Your task to perform on an android device: open app "Google Keep" (install if not already installed) Image 0: 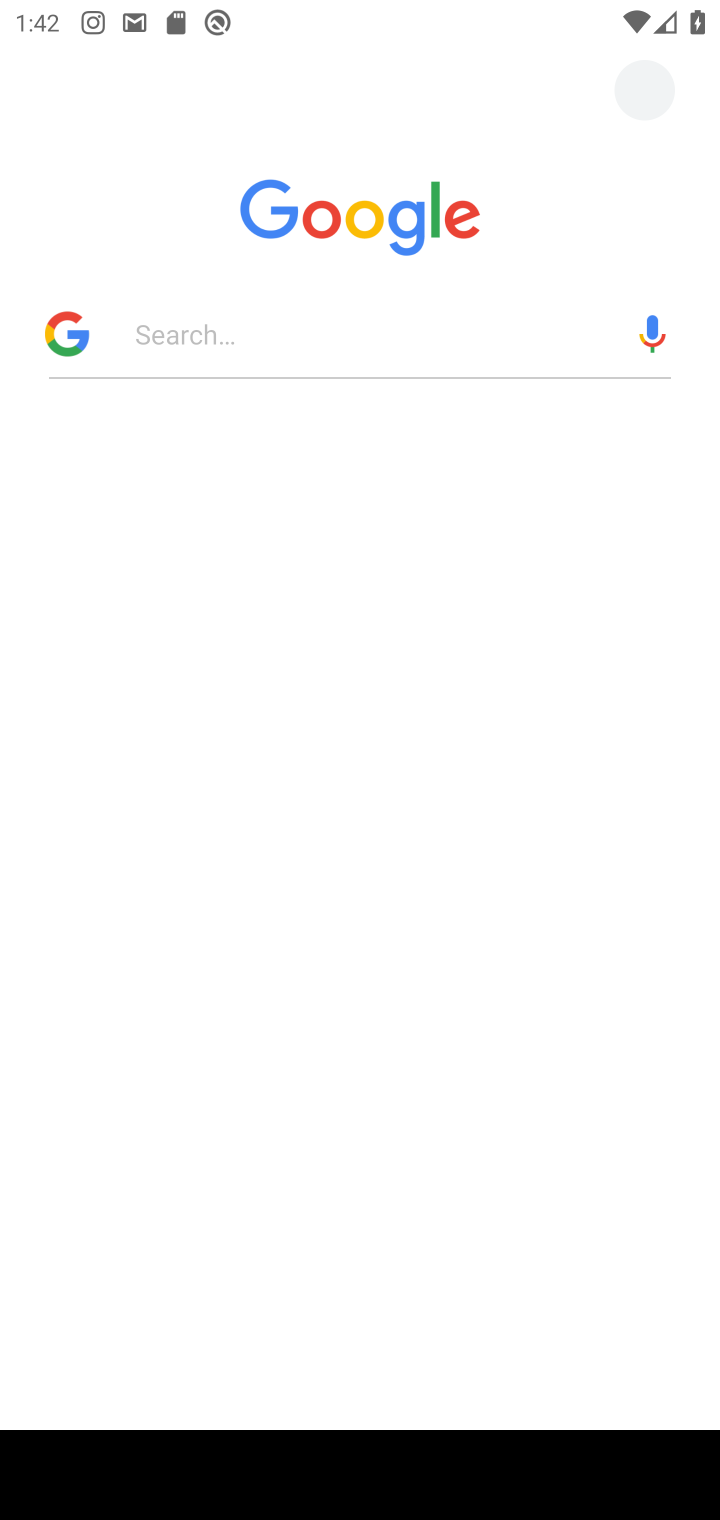
Step 0: press home button
Your task to perform on an android device: open app "Google Keep" (install if not already installed) Image 1: 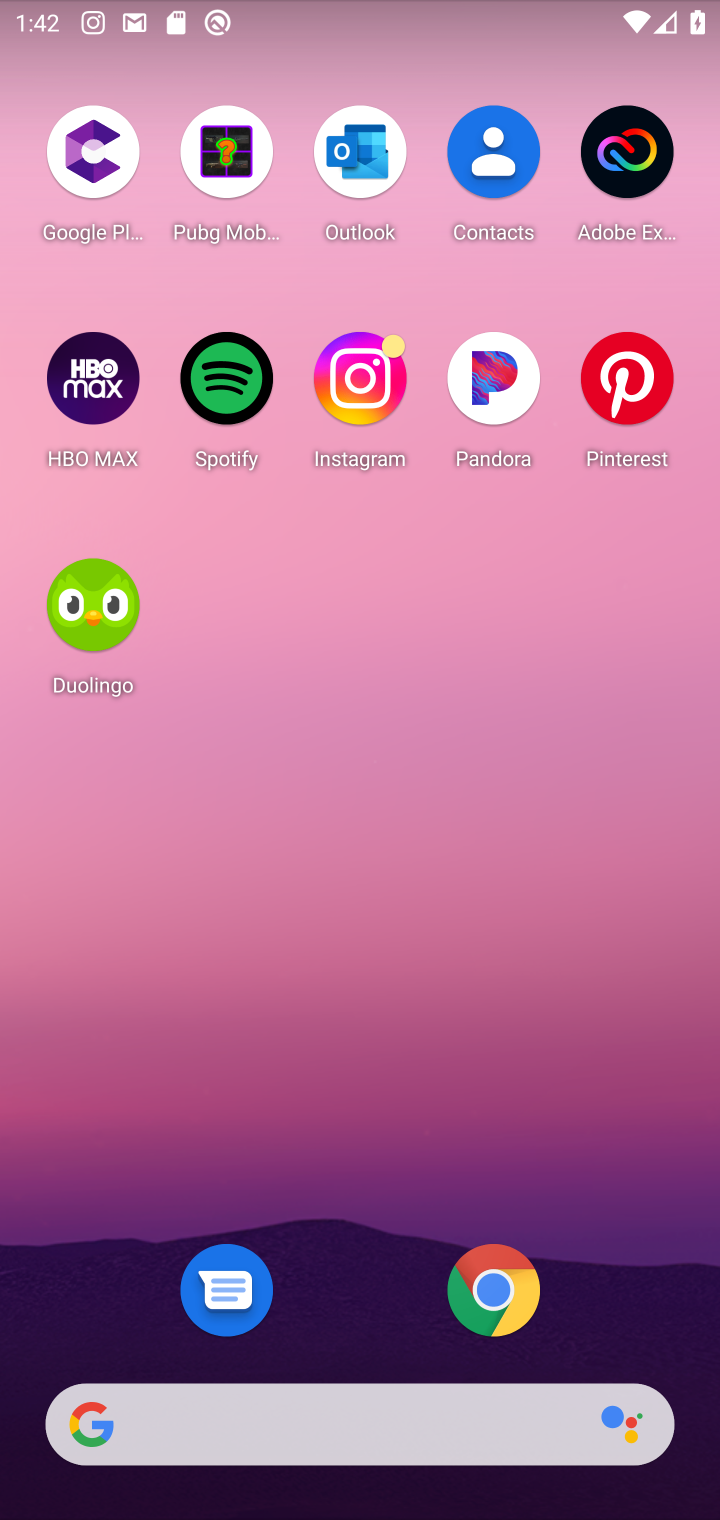
Step 1: drag from (346, 1178) to (285, 106)
Your task to perform on an android device: open app "Google Keep" (install if not already installed) Image 2: 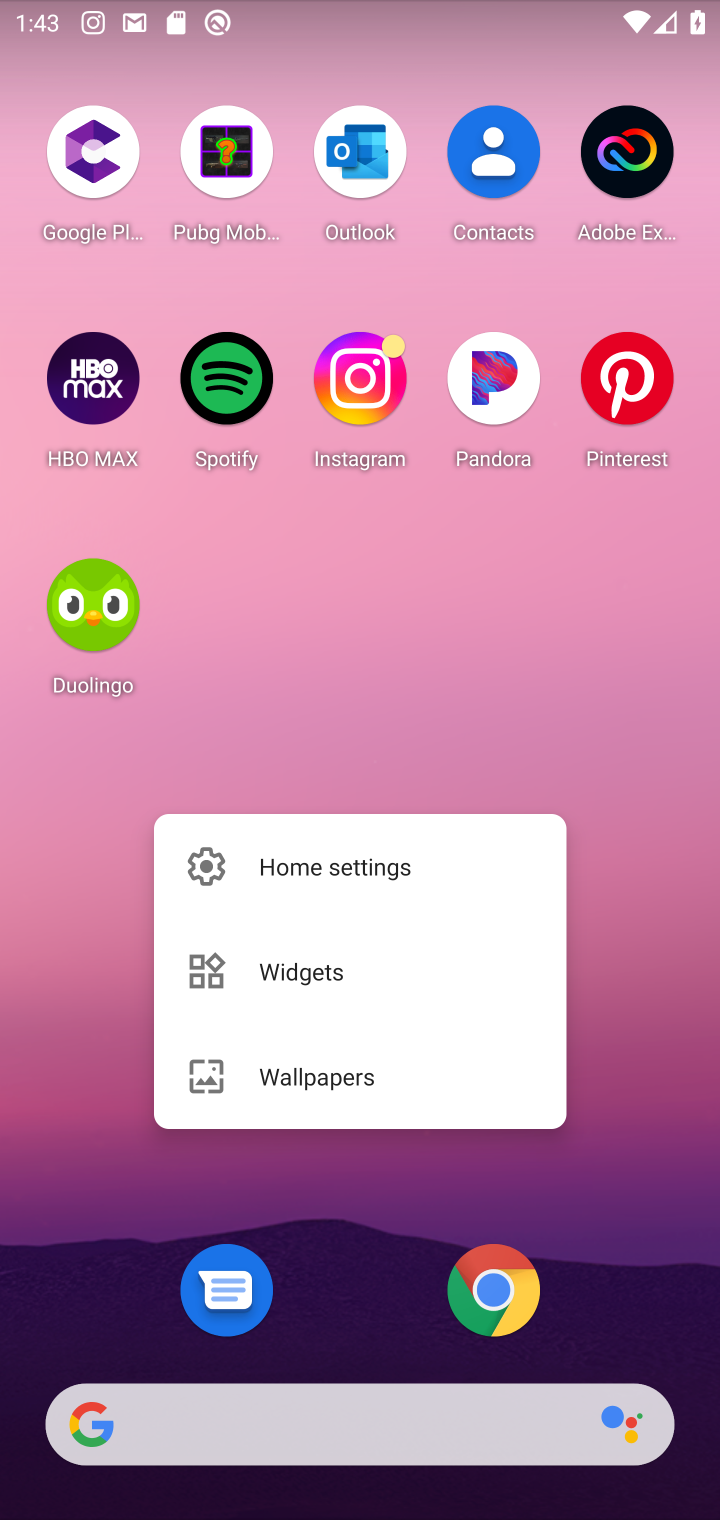
Step 2: click (344, 1354)
Your task to perform on an android device: open app "Google Keep" (install if not already installed) Image 3: 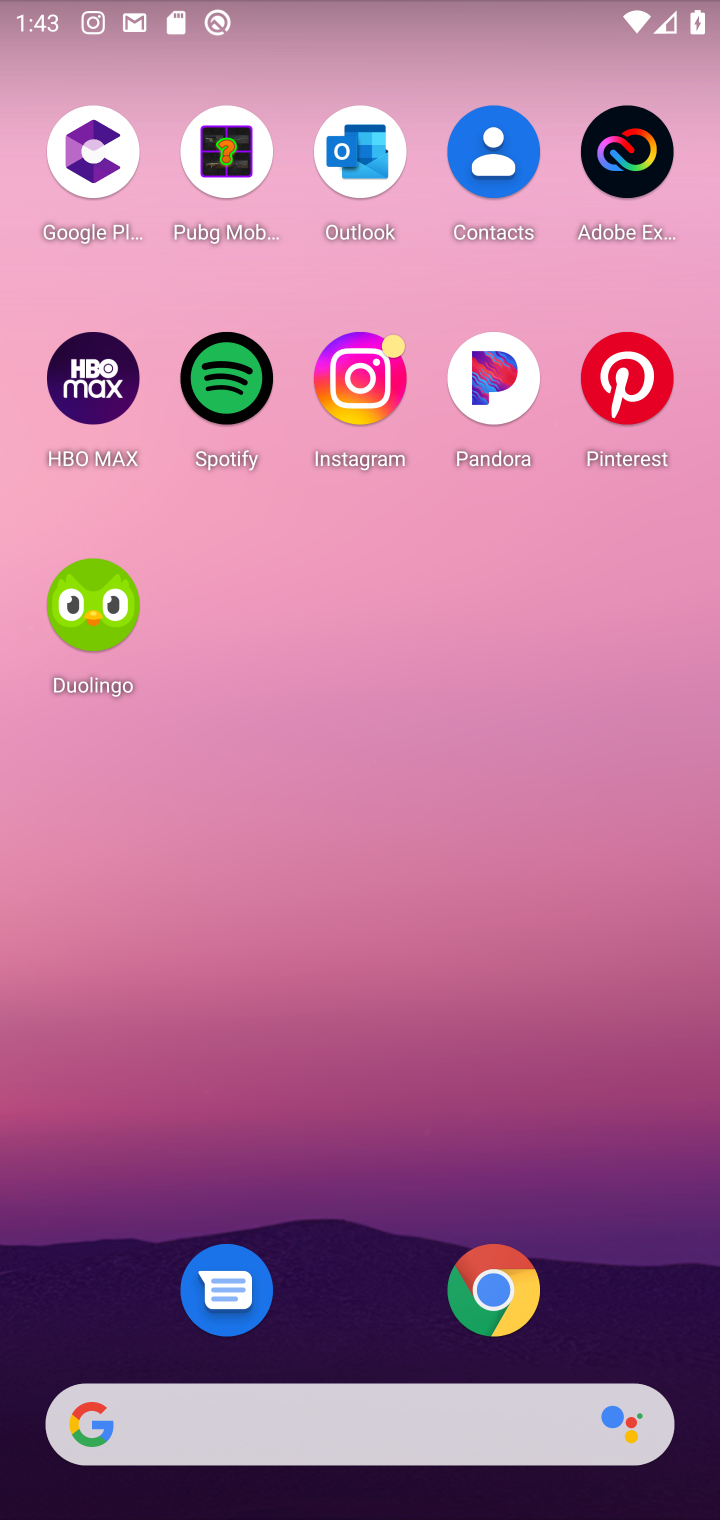
Step 3: drag from (349, 1334) to (323, 11)
Your task to perform on an android device: open app "Google Keep" (install if not already installed) Image 4: 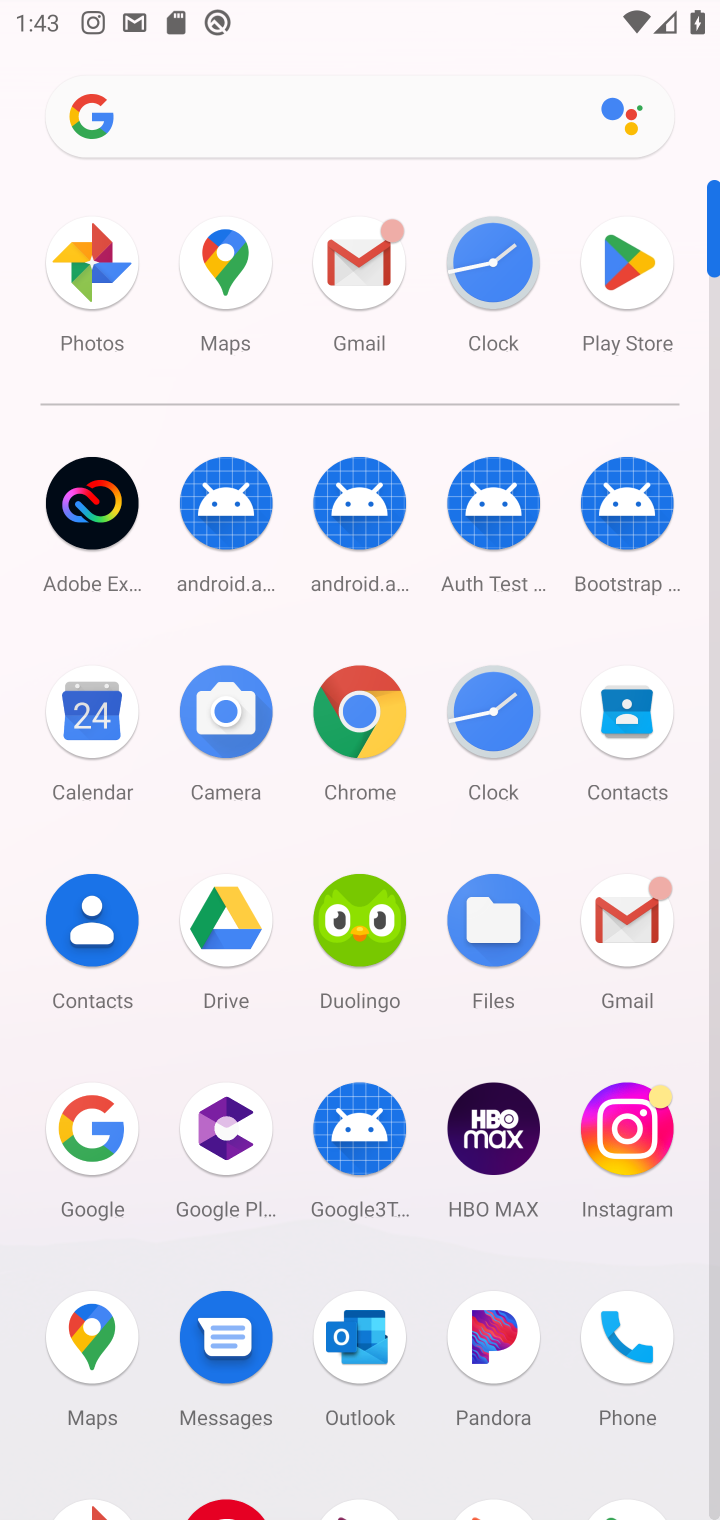
Step 4: click (619, 283)
Your task to perform on an android device: open app "Google Keep" (install if not already installed) Image 5: 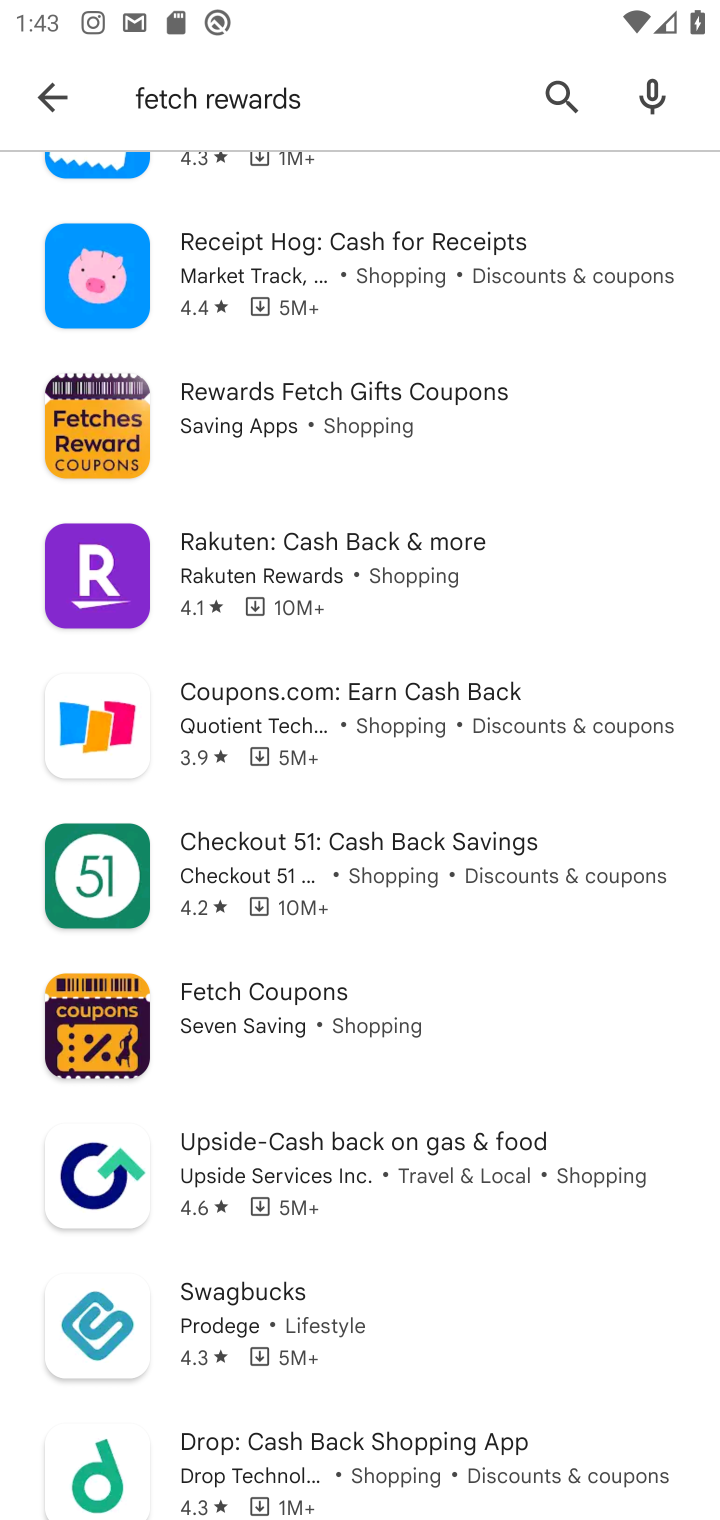
Step 5: click (53, 99)
Your task to perform on an android device: open app "Google Keep" (install if not already installed) Image 6: 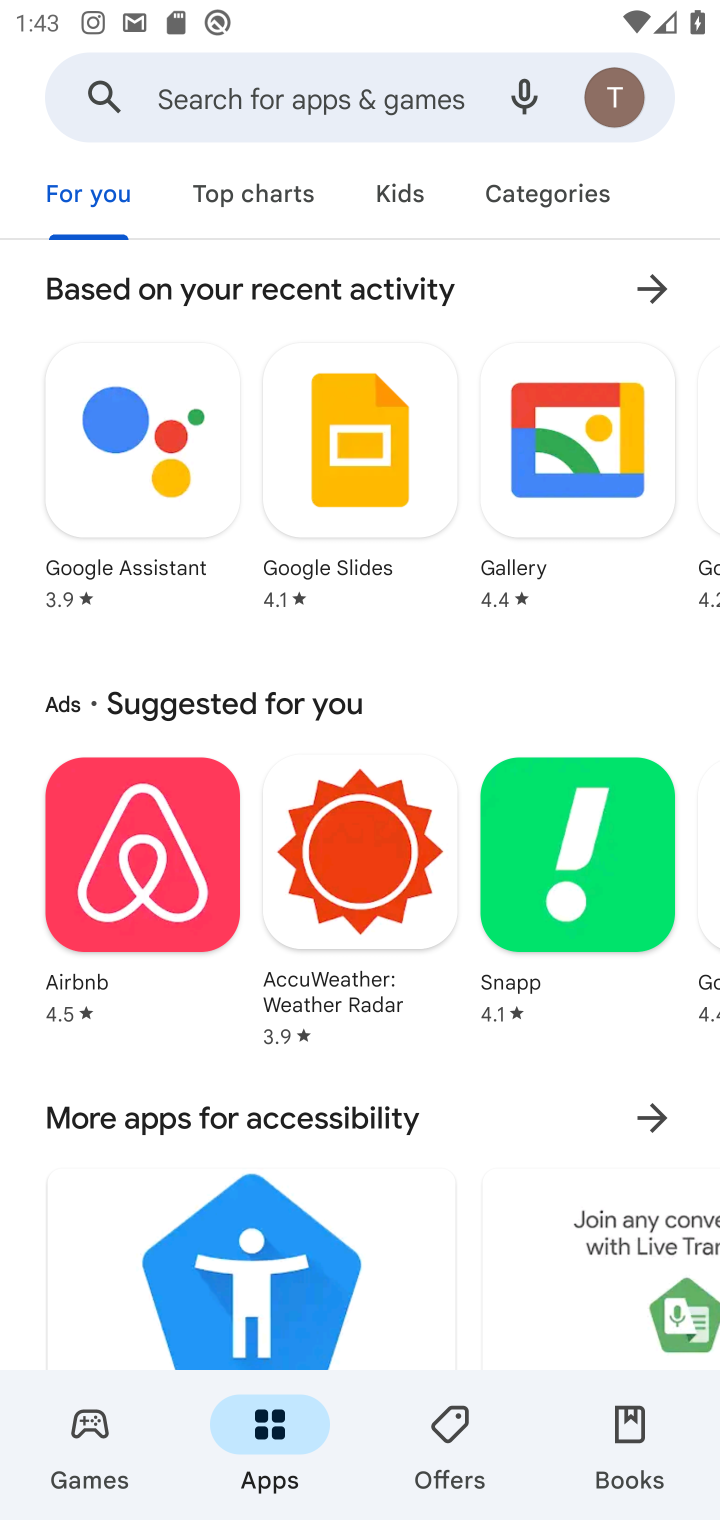
Step 6: click (267, 100)
Your task to perform on an android device: open app "Google Keep" (install if not already installed) Image 7: 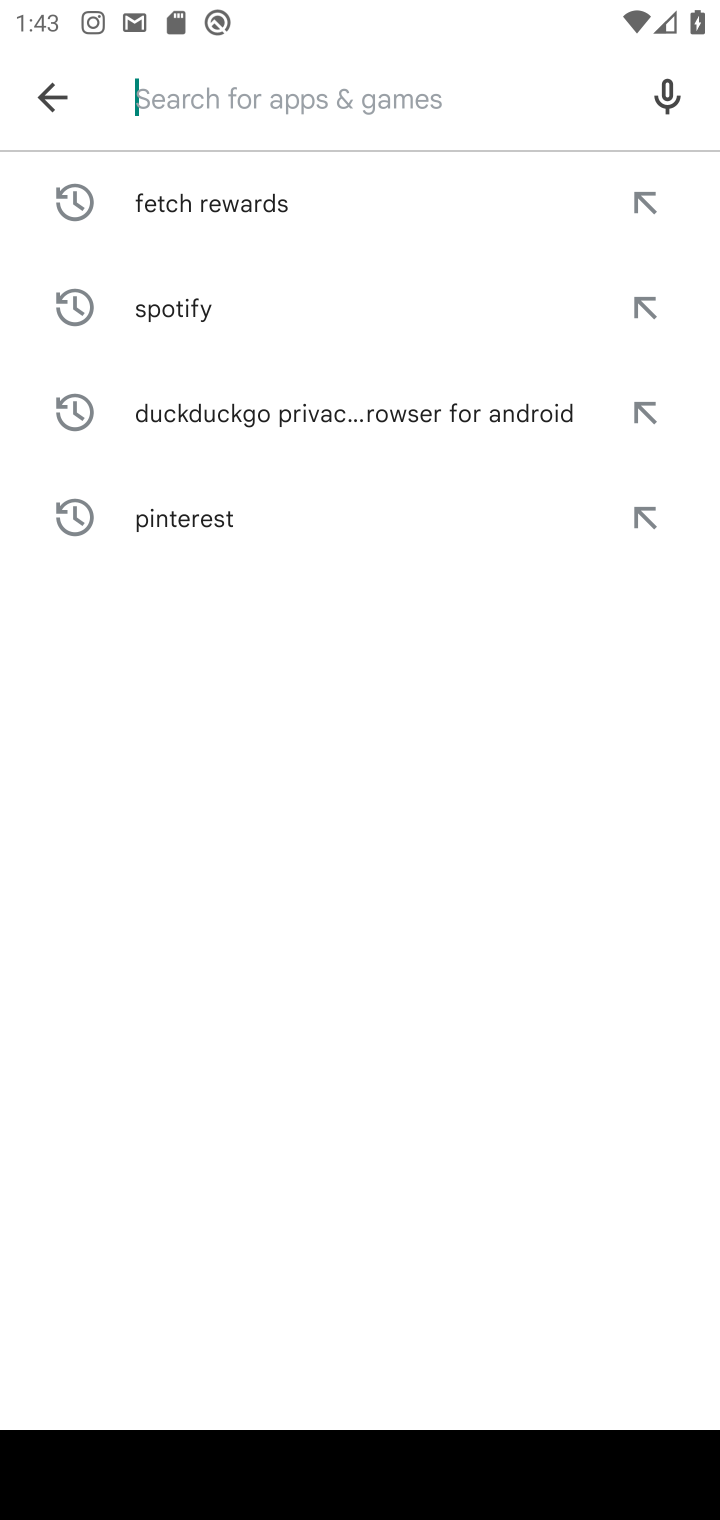
Step 7: type "Google Keep"
Your task to perform on an android device: open app "Google Keep" (install if not already installed) Image 8: 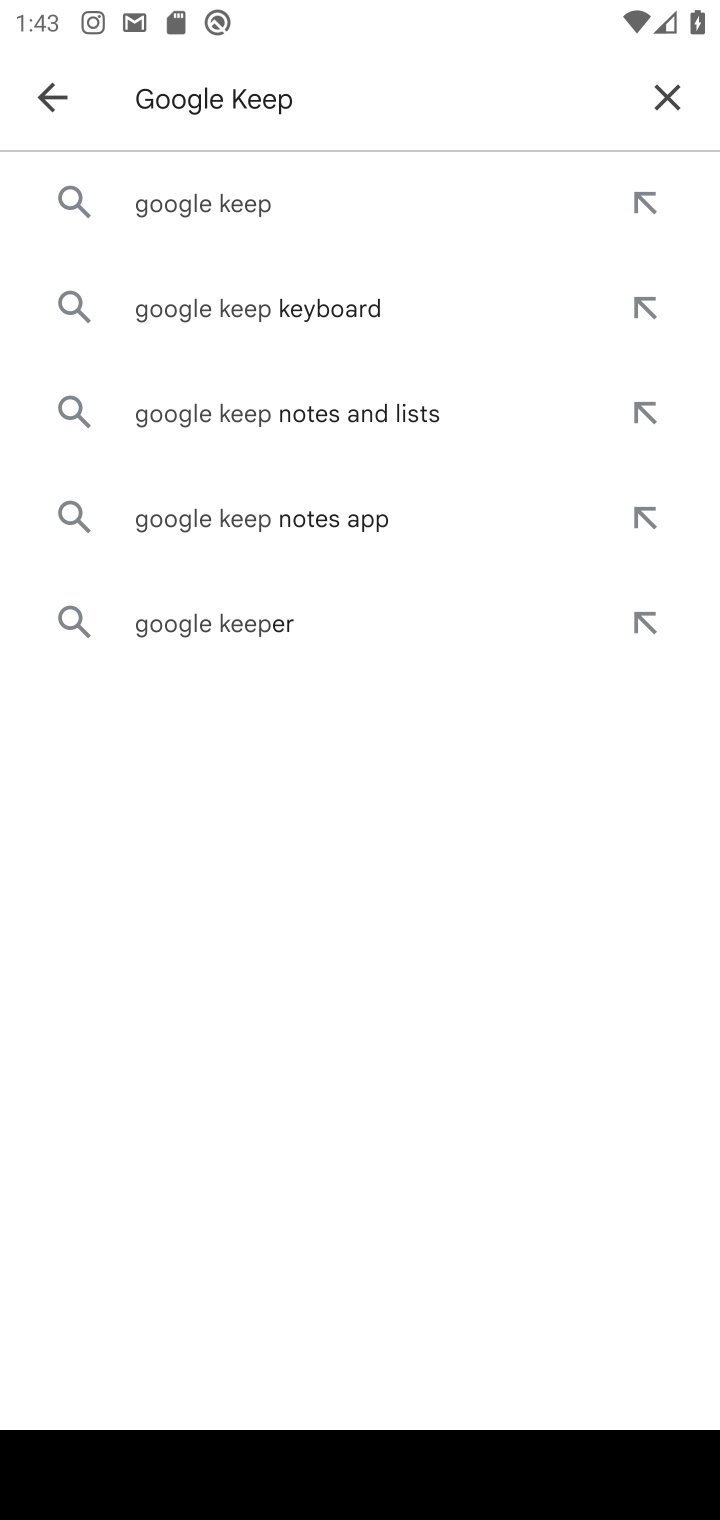
Step 8: click (217, 222)
Your task to perform on an android device: open app "Google Keep" (install if not already installed) Image 9: 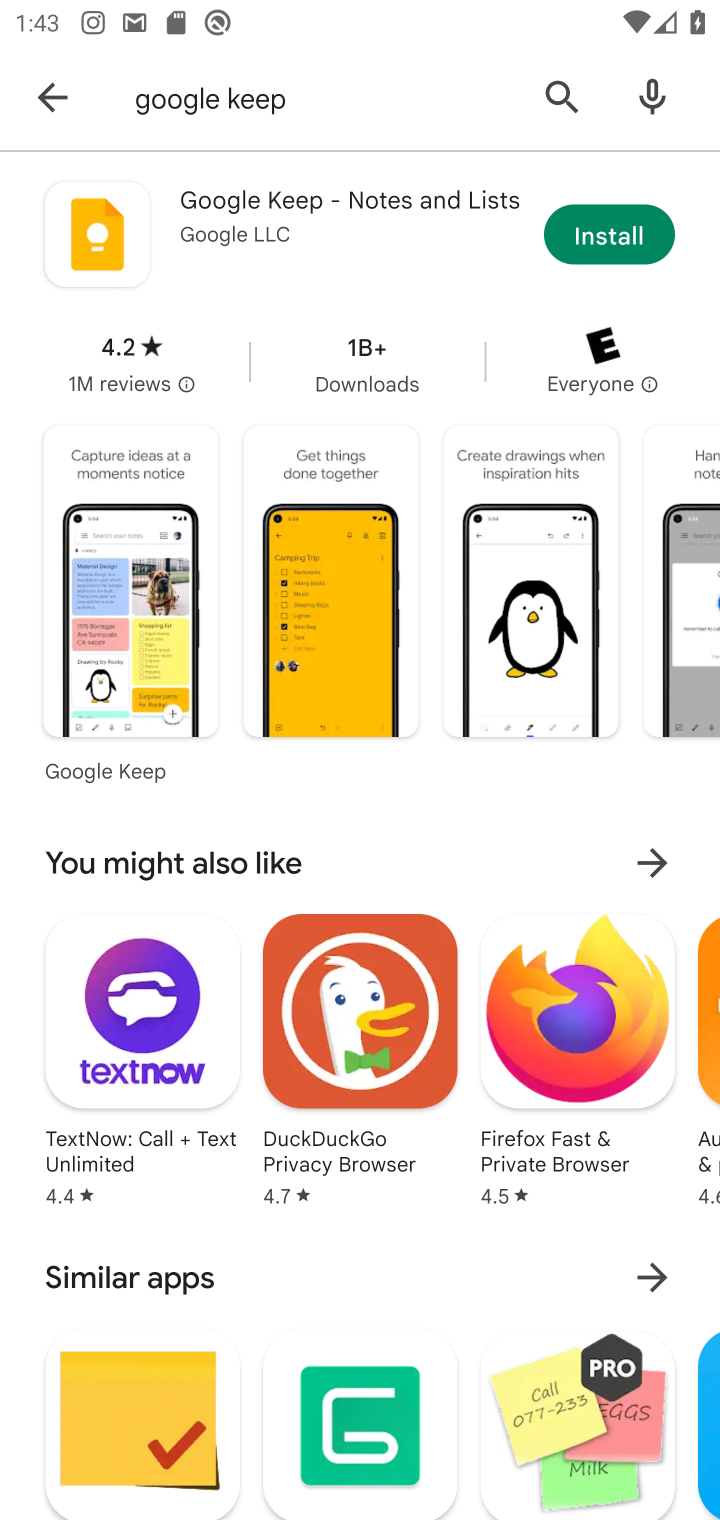
Step 9: click (580, 243)
Your task to perform on an android device: open app "Google Keep" (install if not already installed) Image 10: 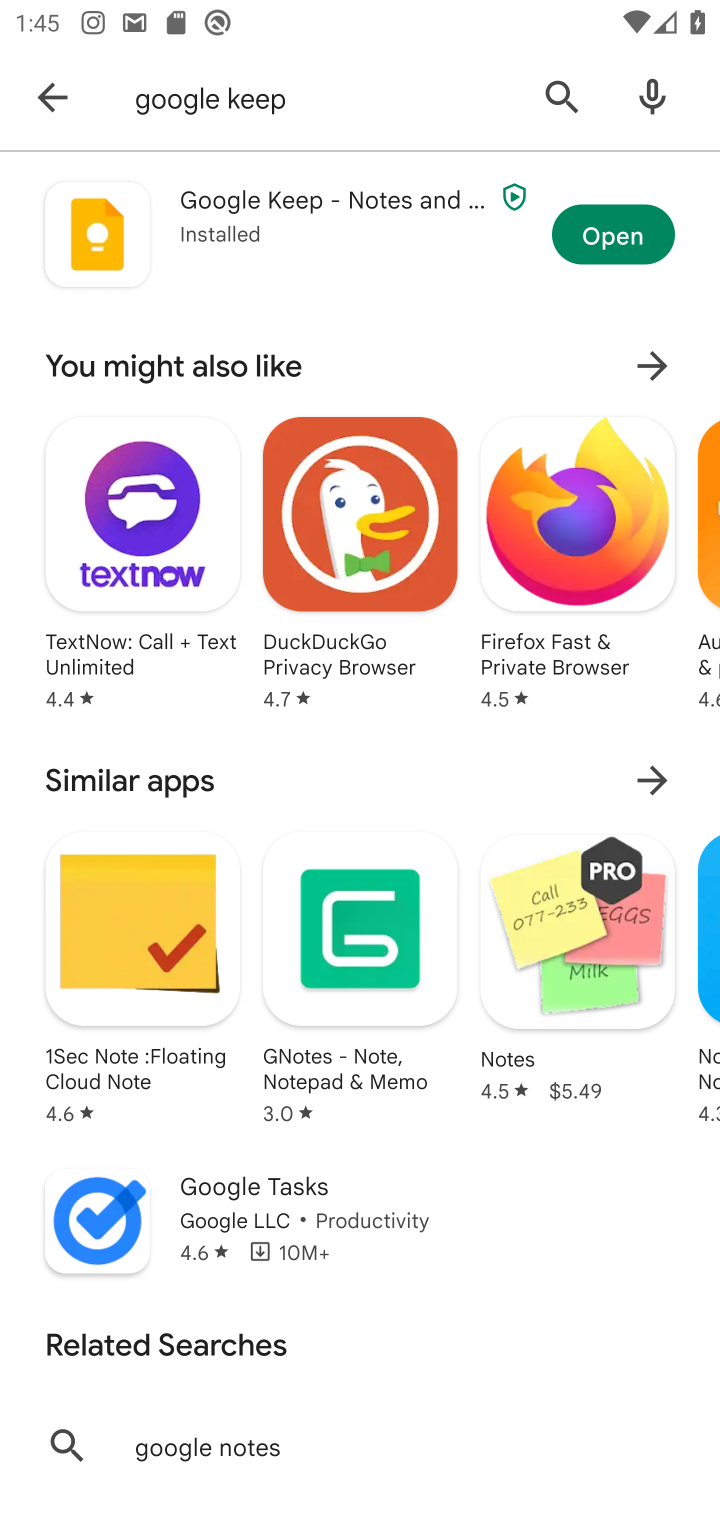
Step 10: click (580, 243)
Your task to perform on an android device: open app "Google Keep" (install if not already installed) Image 11: 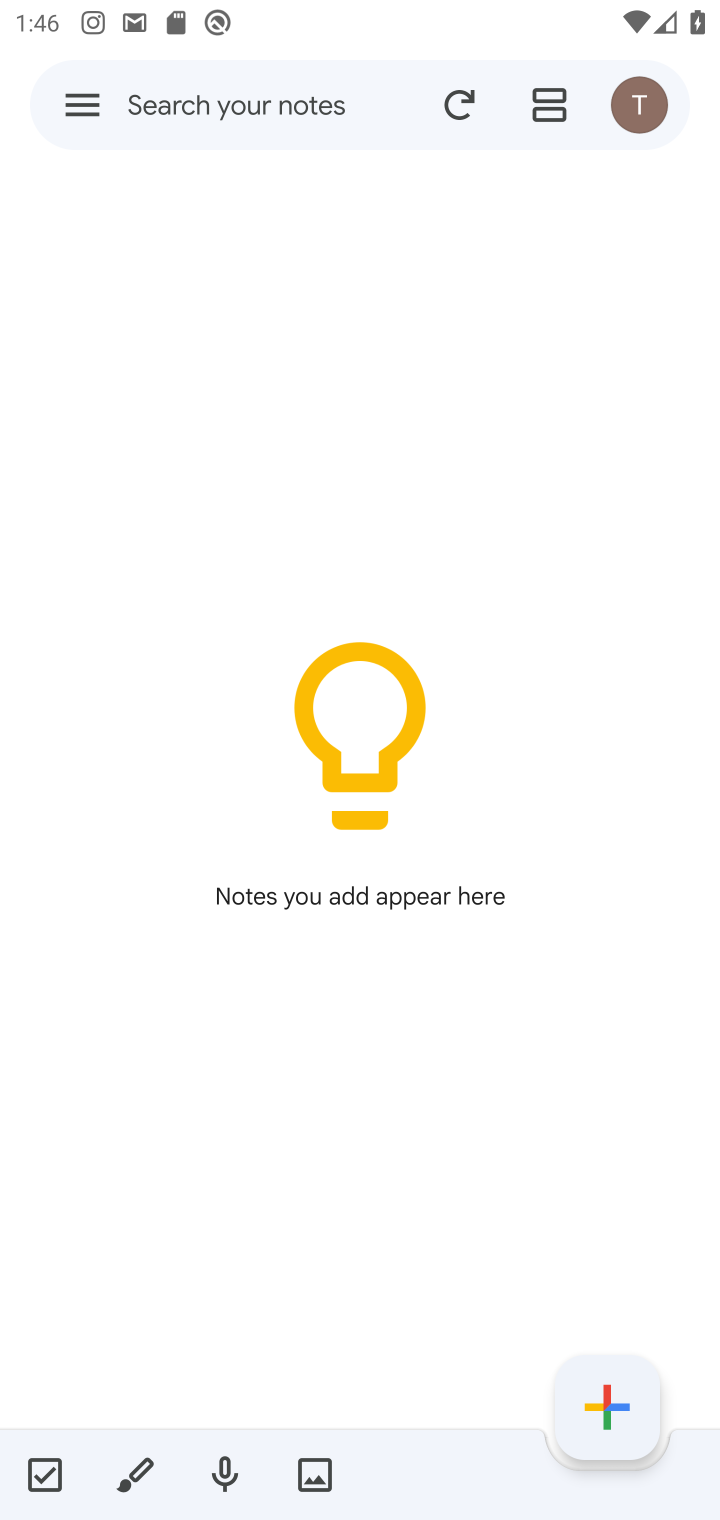
Step 11: press home button
Your task to perform on an android device: open app "Google Keep" (install if not already installed) Image 12: 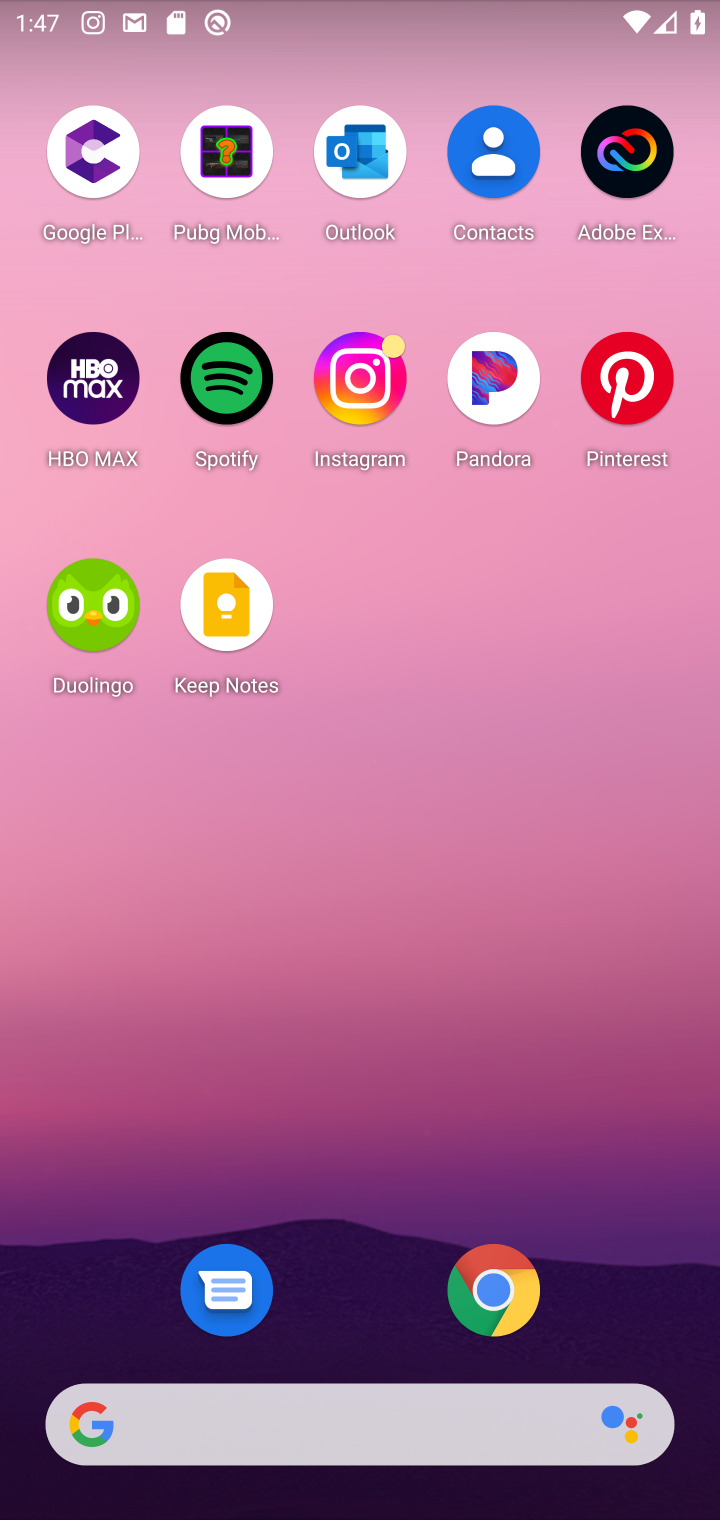
Step 12: drag from (333, 954) to (453, 15)
Your task to perform on an android device: open app "Google Keep" (install if not already installed) Image 13: 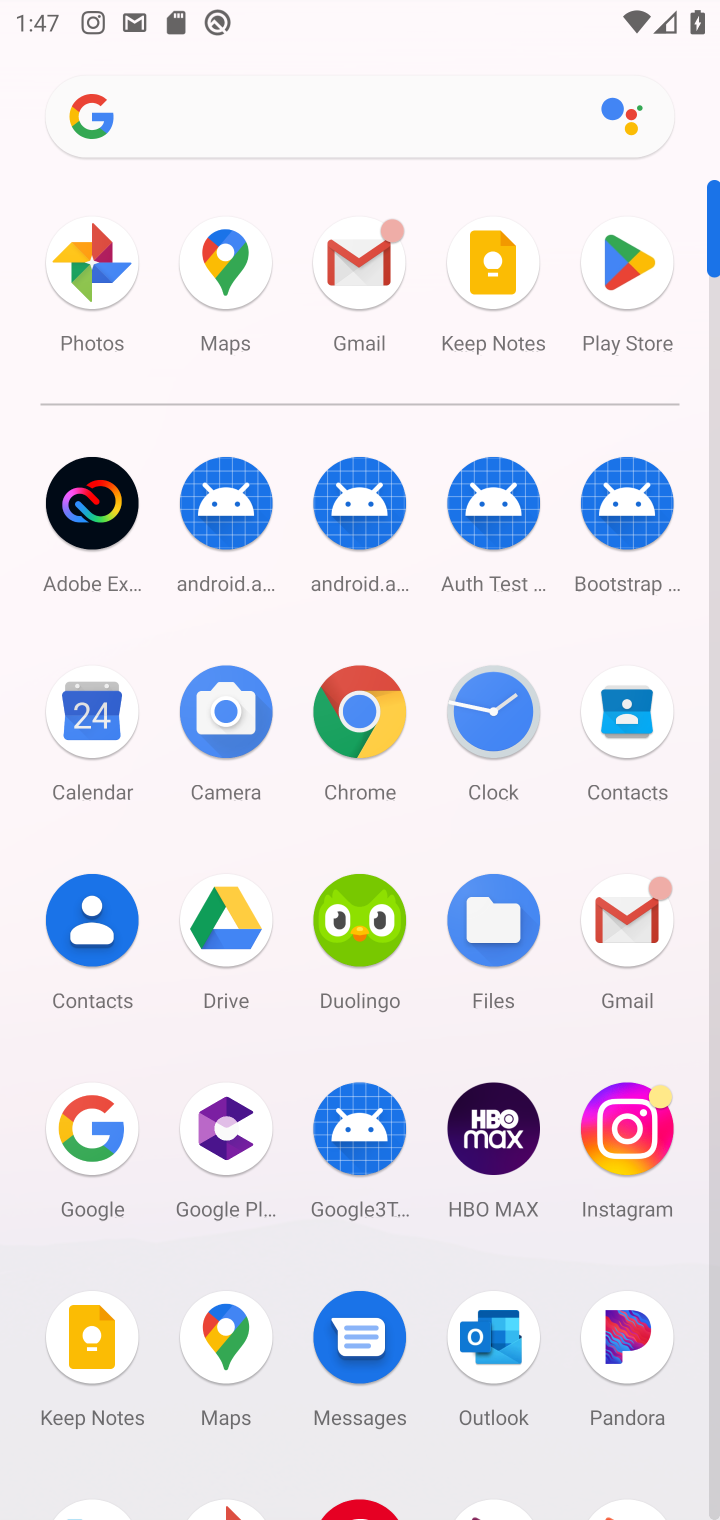
Step 13: click (619, 282)
Your task to perform on an android device: open app "Google Keep" (install if not already installed) Image 14: 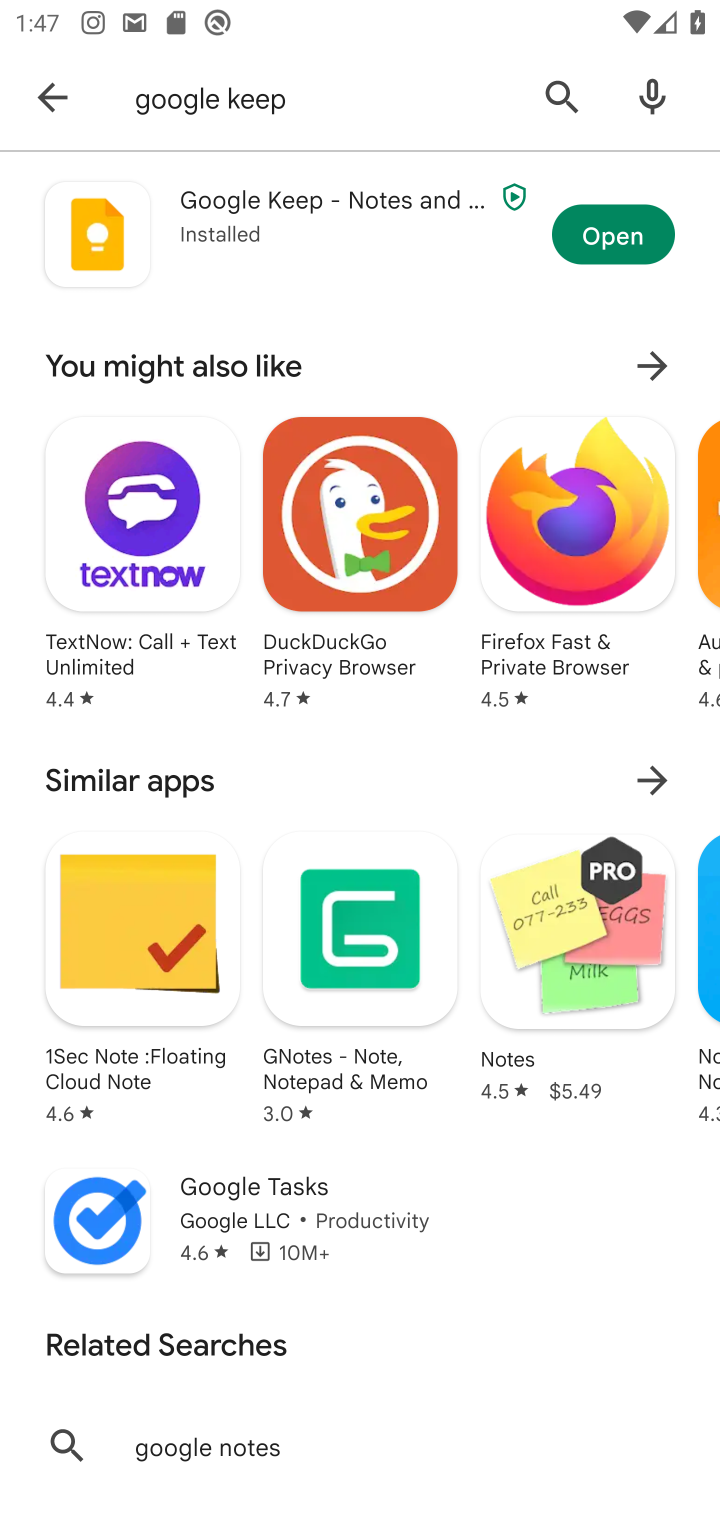
Step 14: click (602, 244)
Your task to perform on an android device: open app "Google Keep" (install if not already installed) Image 15: 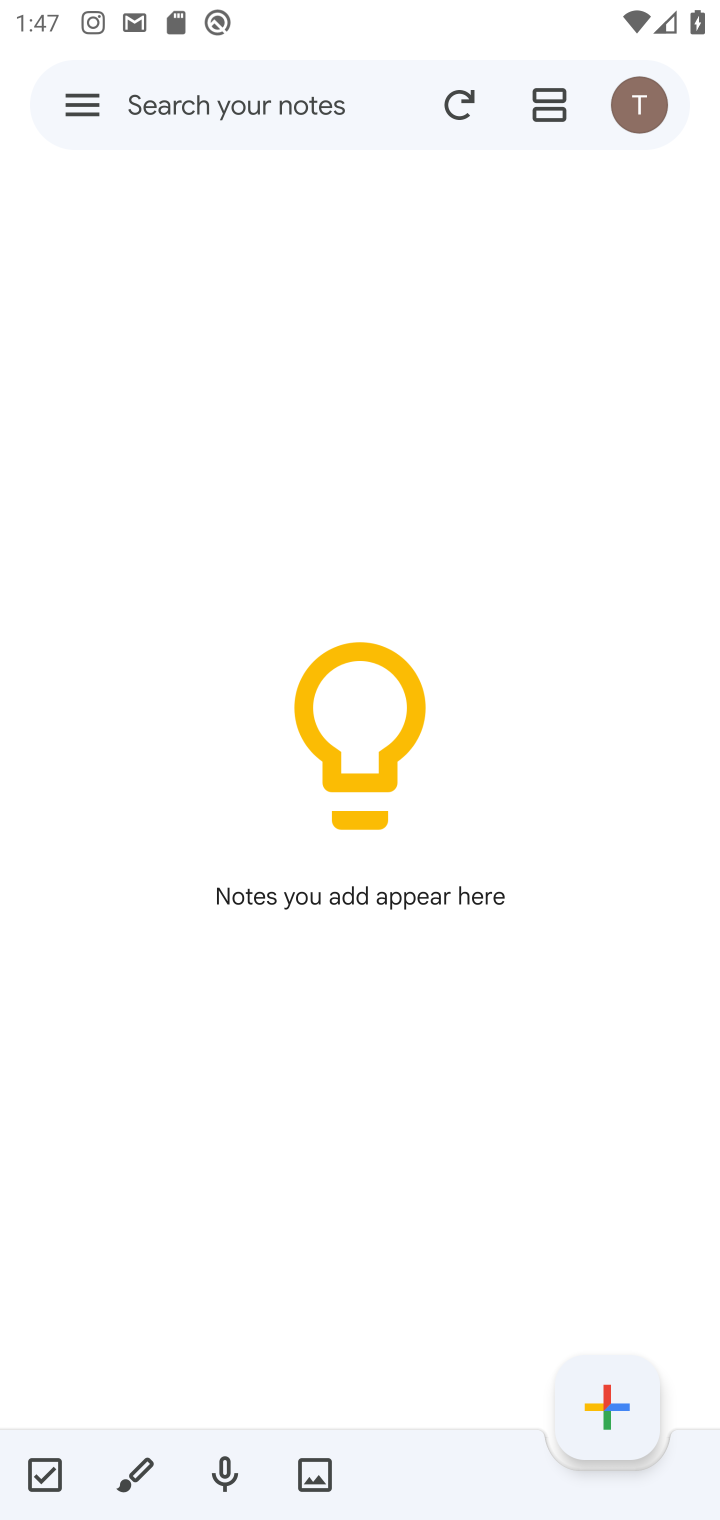
Step 15: task complete